Your task to perform on an android device: check storage Image 0: 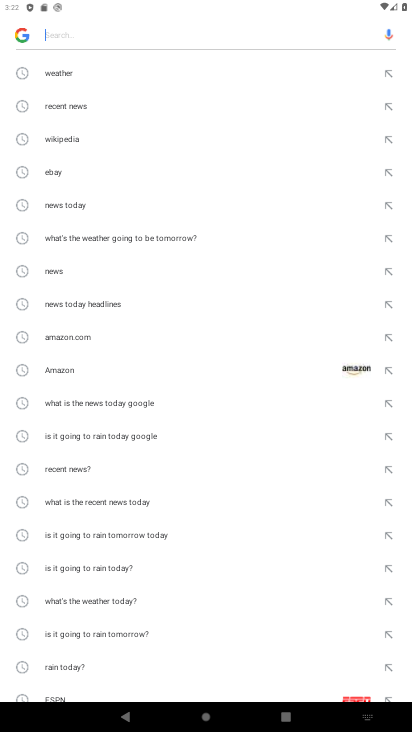
Step 0: press home button
Your task to perform on an android device: check storage Image 1: 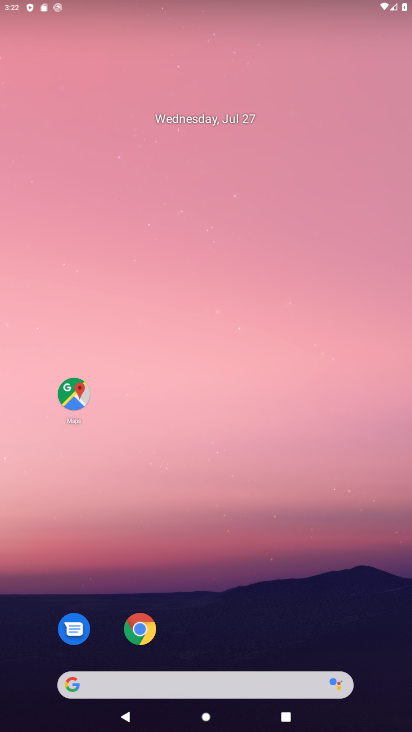
Step 1: drag from (351, 635) to (287, 46)
Your task to perform on an android device: check storage Image 2: 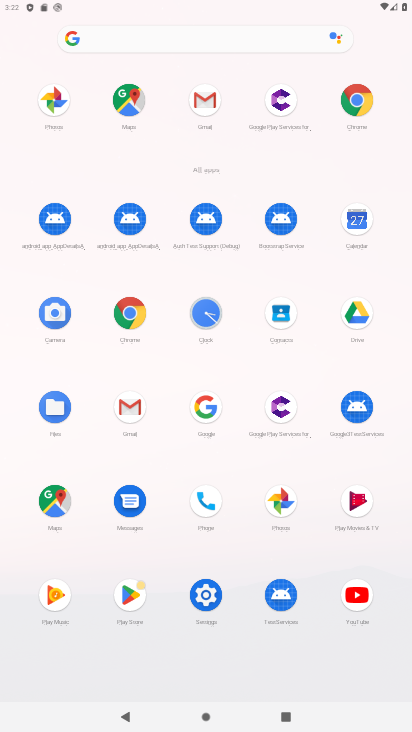
Step 2: click (201, 601)
Your task to perform on an android device: check storage Image 3: 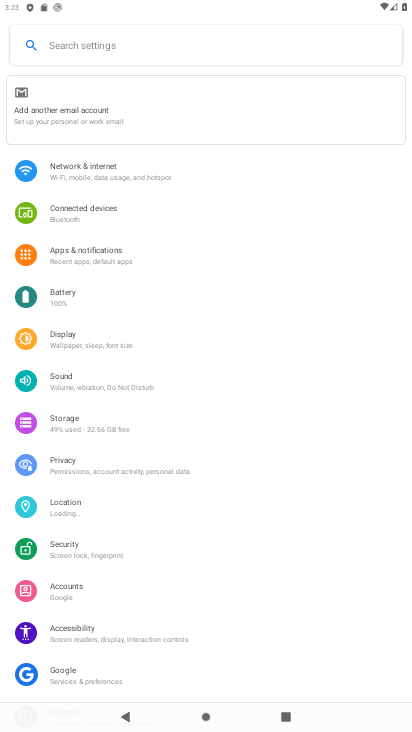
Step 3: click (73, 430)
Your task to perform on an android device: check storage Image 4: 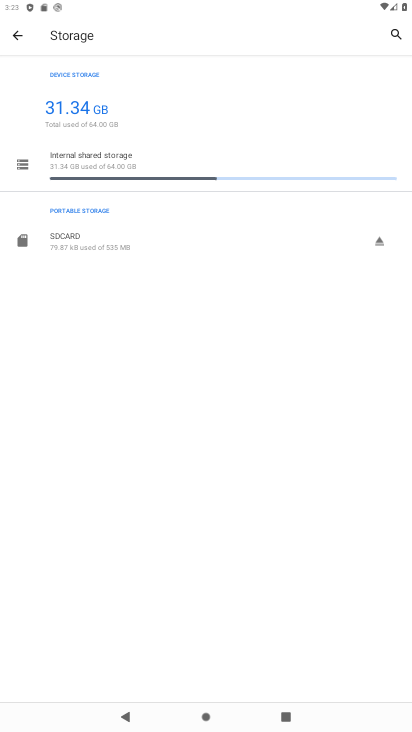
Step 4: task complete